Your task to perform on an android device: change timer sound Image 0: 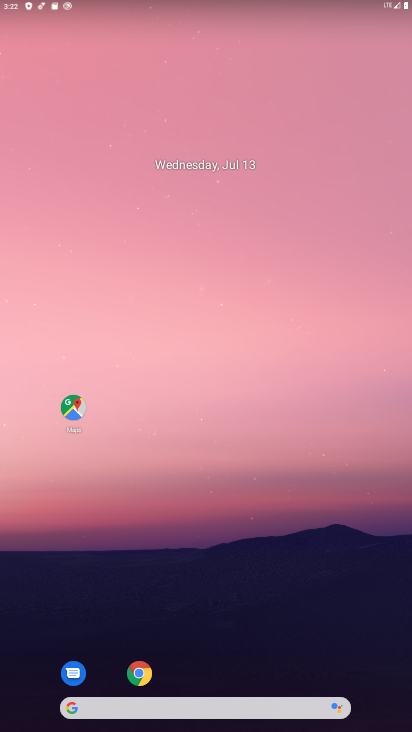
Step 0: drag from (224, 730) to (234, 132)
Your task to perform on an android device: change timer sound Image 1: 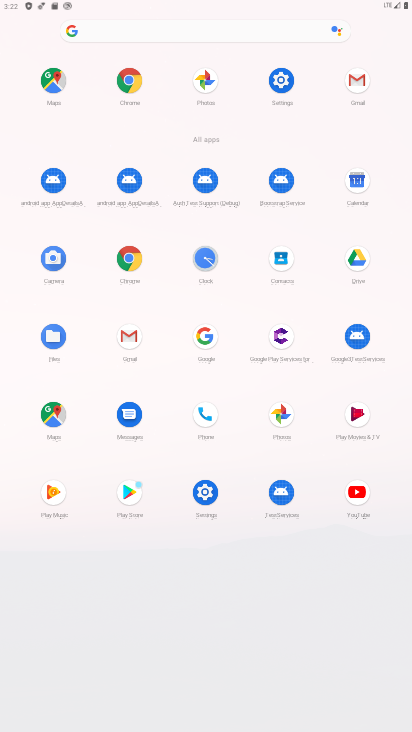
Step 1: click (206, 261)
Your task to perform on an android device: change timer sound Image 2: 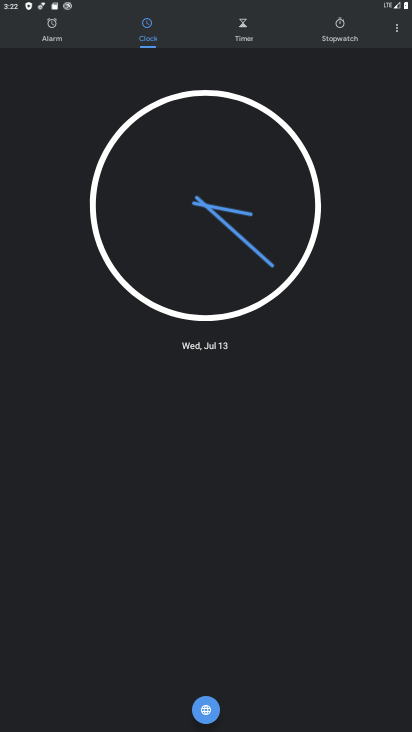
Step 2: click (396, 31)
Your task to perform on an android device: change timer sound Image 3: 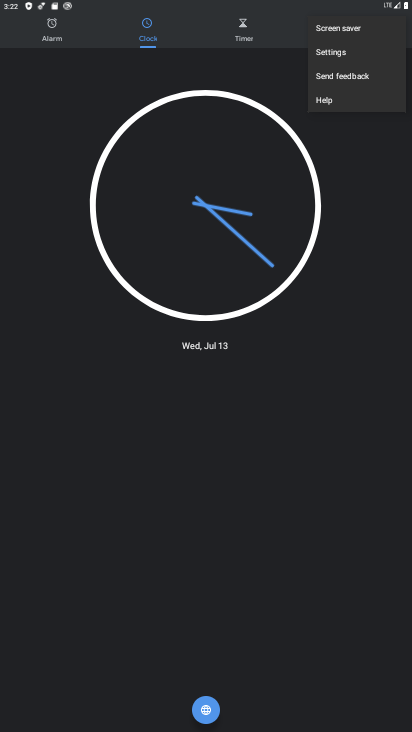
Step 3: click (332, 51)
Your task to perform on an android device: change timer sound Image 4: 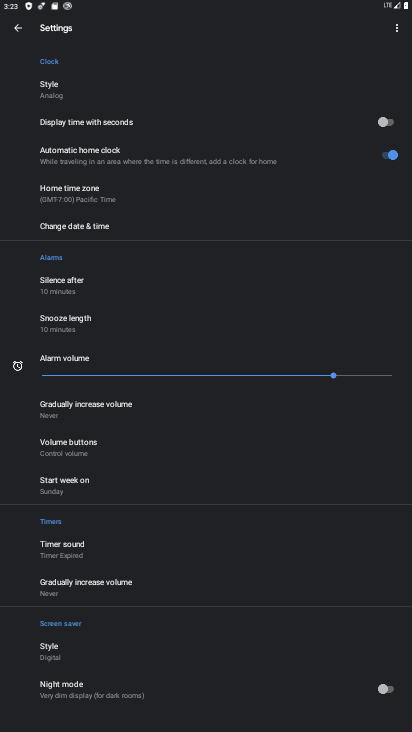
Step 4: click (74, 543)
Your task to perform on an android device: change timer sound Image 5: 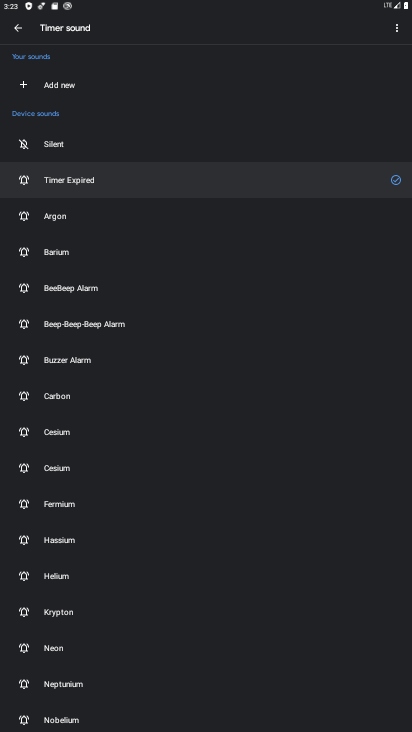
Step 5: click (52, 540)
Your task to perform on an android device: change timer sound Image 6: 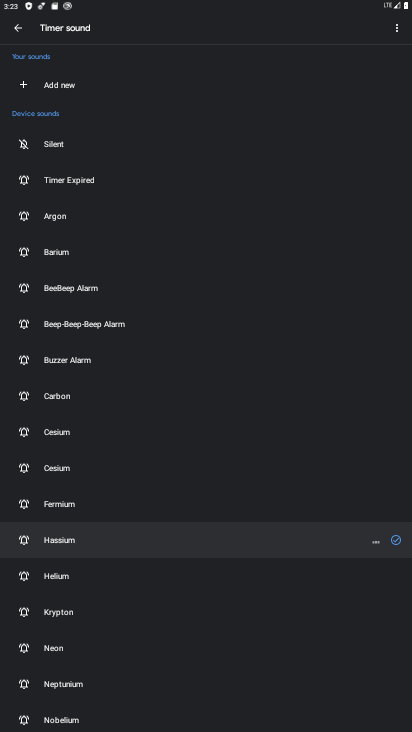
Step 6: task complete